Your task to perform on an android device: Set the phone to "Do not disturb". Image 0: 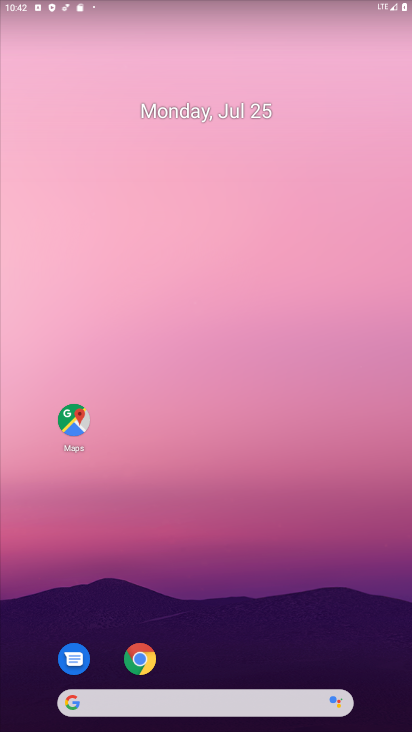
Step 0: drag from (200, 642) to (215, 283)
Your task to perform on an android device: Set the phone to "Do not disturb". Image 1: 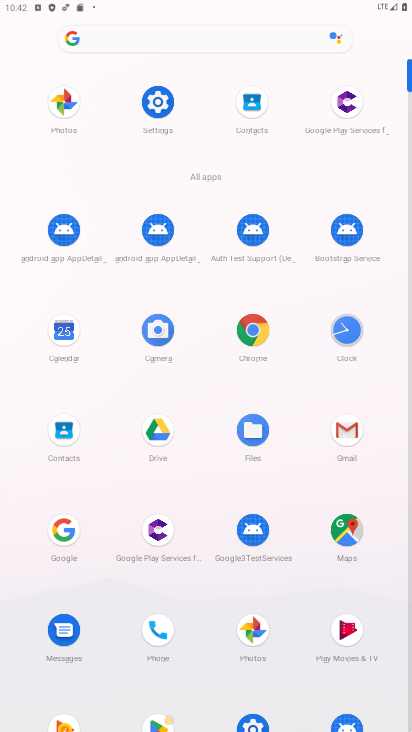
Step 1: click (173, 104)
Your task to perform on an android device: Set the phone to "Do not disturb". Image 2: 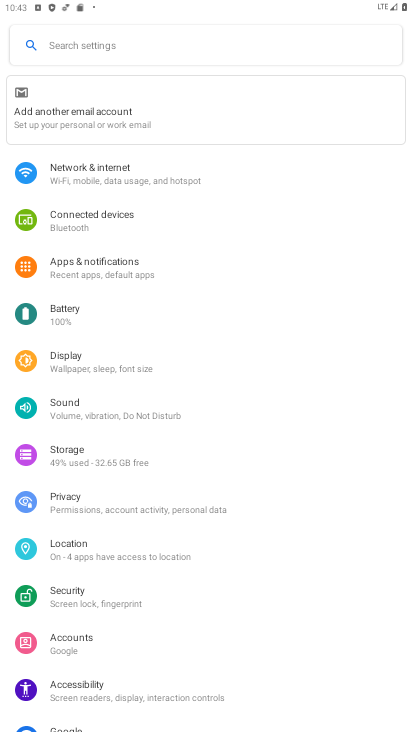
Step 2: click (99, 414)
Your task to perform on an android device: Set the phone to "Do not disturb". Image 3: 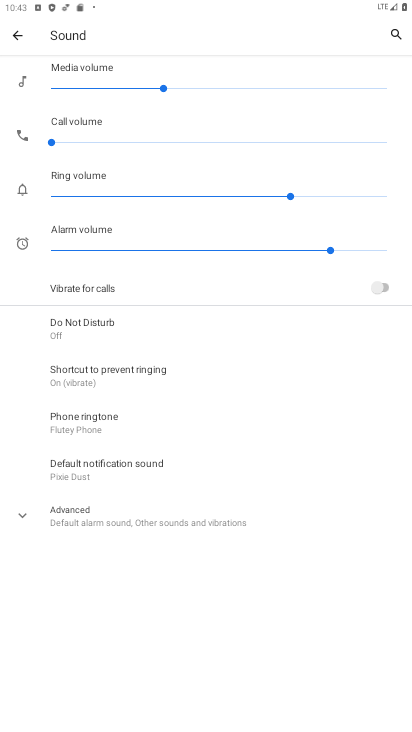
Step 3: click (88, 344)
Your task to perform on an android device: Set the phone to "Do not disturb". Image 4: 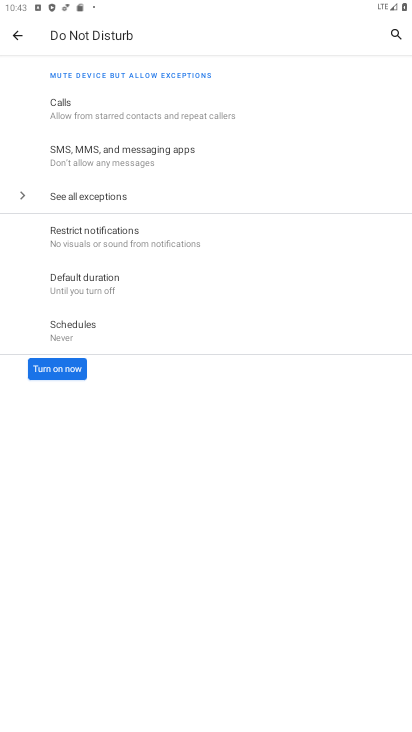
Step 4: click (66, 369)
Your task to perform on an android device: Set the phone to "Do not disturb". Image 5: 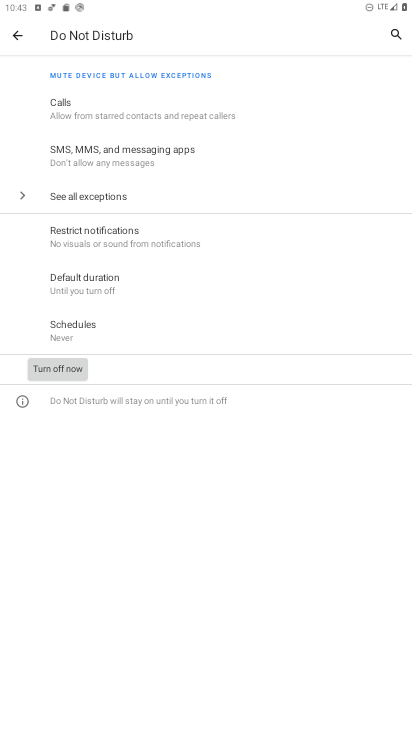
Step 5: task complete